Your task to perform on an android device: change text size in settings app Image 0: 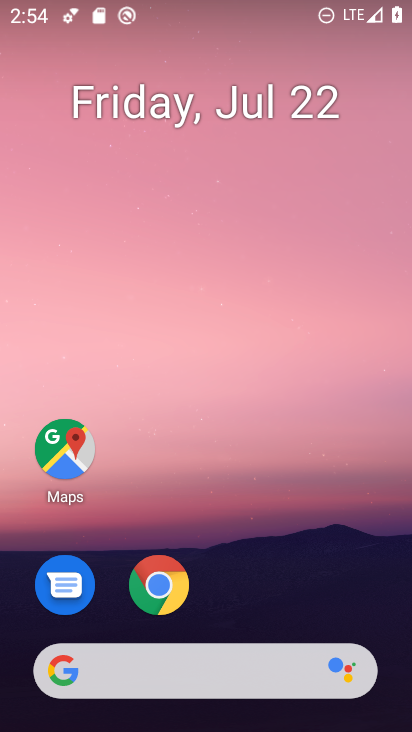
Step 0: drag from (268, 559) to (304, 106)
Your task to perform on an android device: change text size in settings app Image 1: 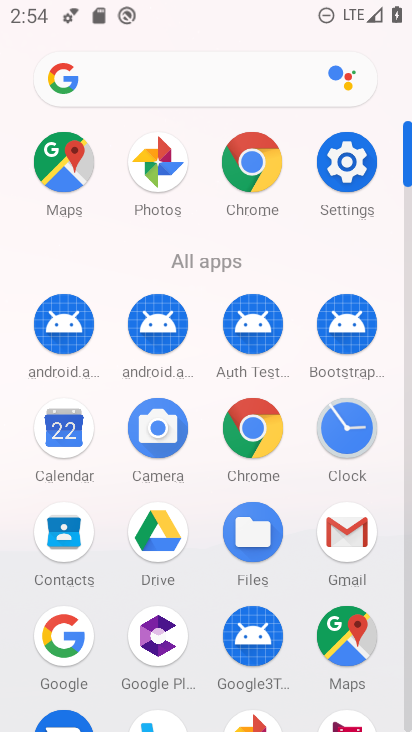
Step 1: click (352, 165)
Your task to perform on an android device: change text size in settings app Image 2: 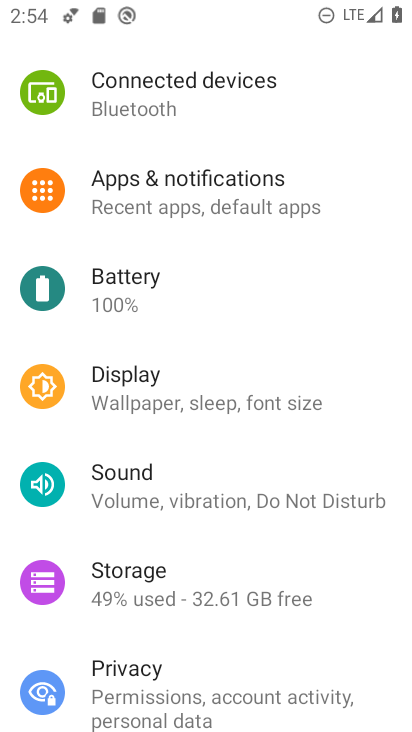
Step 2: click (216, 390)
Your task to perform on an android device: change text size in settings app Image 3: 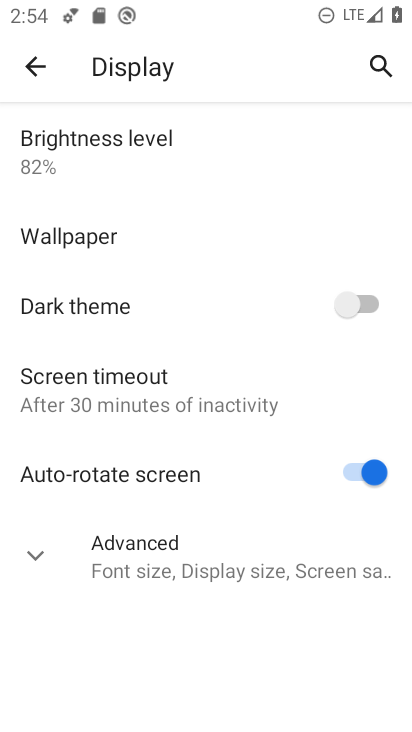
Step 3: click (28, 554)
Your task to perform on an android device: change text size in settings app Image 4: 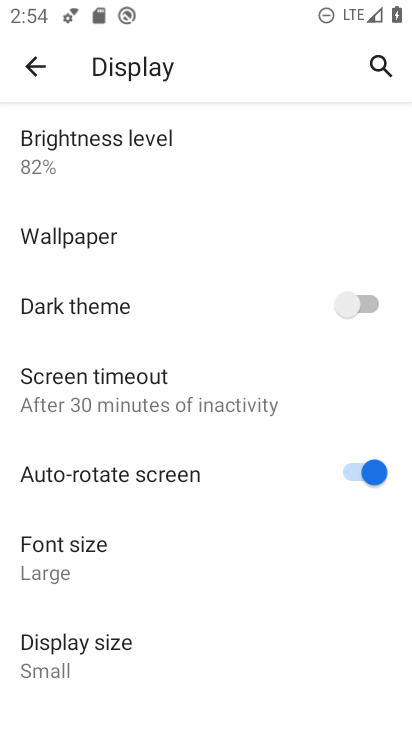
Step 4: click (57, 554)
Your task to perform on an android device: change text size in settings app Image 5: 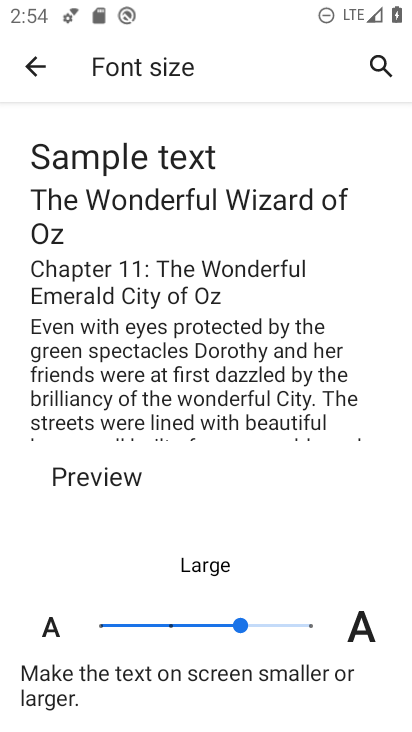
Step 5: click (172, 619)
Your task to perform on an android device: change text size in settings app Image 6: 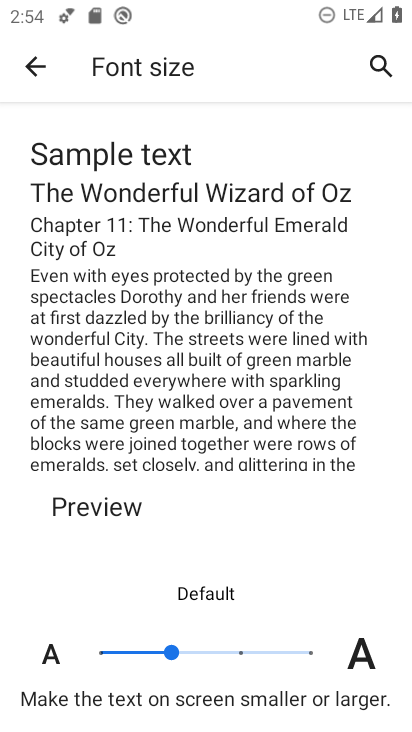
Step 6: task complete